Your task to perform on an android device: turn on the 24-hour format for clock Image 0: 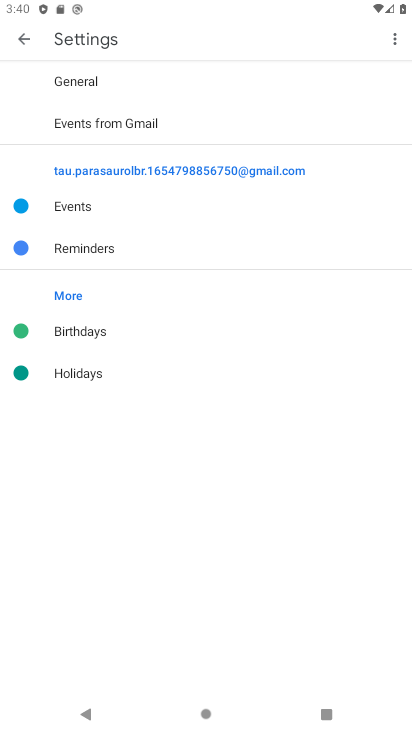
Step 0: press home button
Your task to perform on an android device: turn on the 24-hour format for clock Image 1: 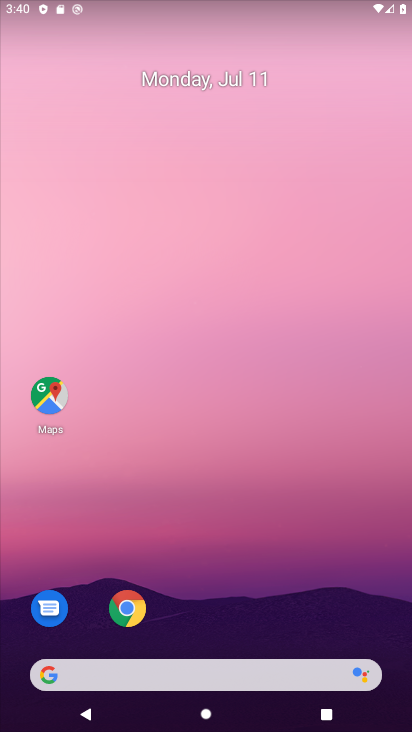
Step 1: drag from (125, 692) to (221, 19)
Your task to perform on an android device: turn on the 24-hour format for clock Image 2: 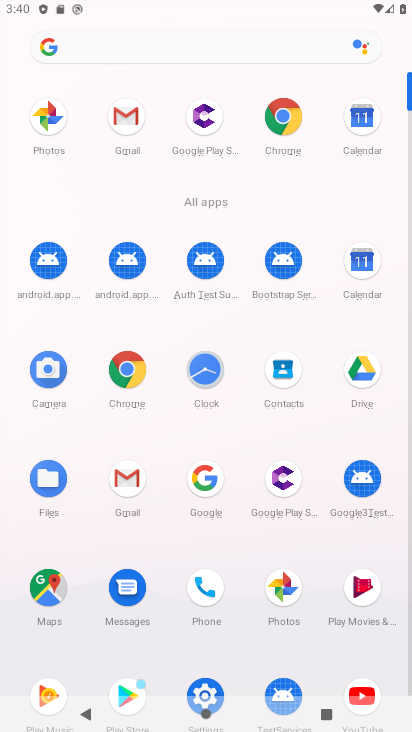
Step 2: drag from (235, 523) to (210, 89)
Your task to perform on an android device: turn on the 24-hour format for clock Image 3: 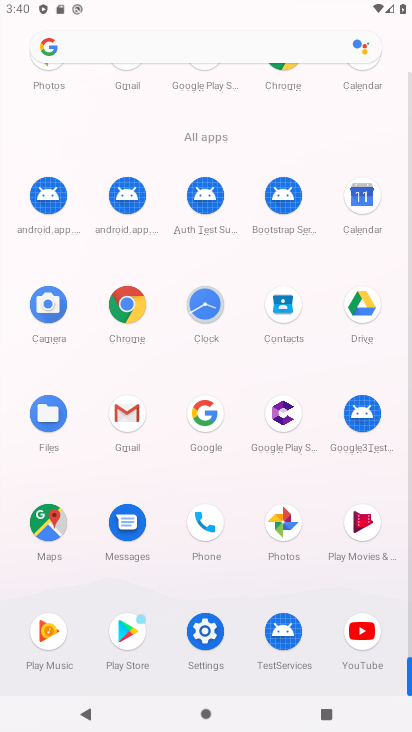
Step 3: click (209, 303)
Your task to perform on an android device: turn on the 24-hour format for clock Image 4: 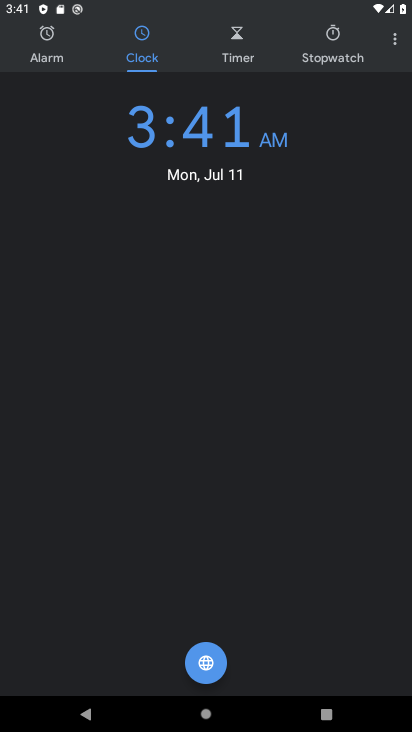
Step 4: click (390, 33)
Your task to perform on an android device: turn on the 24-hour format for clock Image 5: 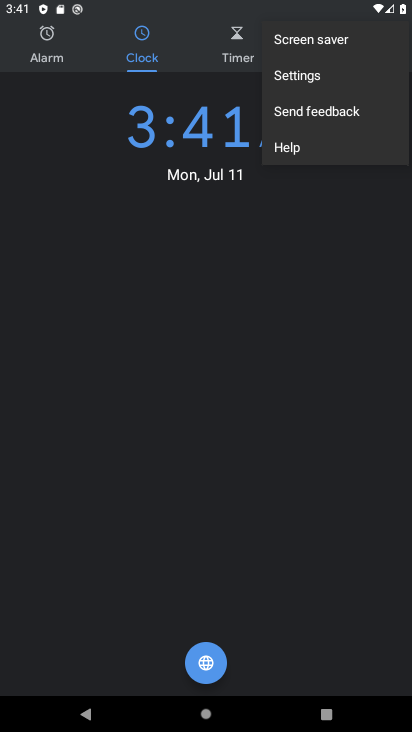
Step 5: click (333, 77)
Your task to perform on an android device: turn on the 24-hour format for clock Image 6: 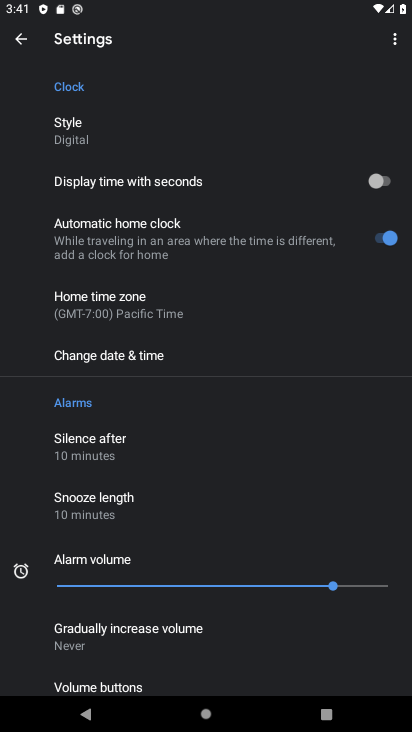
Step 6: click (138, 355)
Your task to perform on an android device: turn on the 24-hour format for clock Image 7: 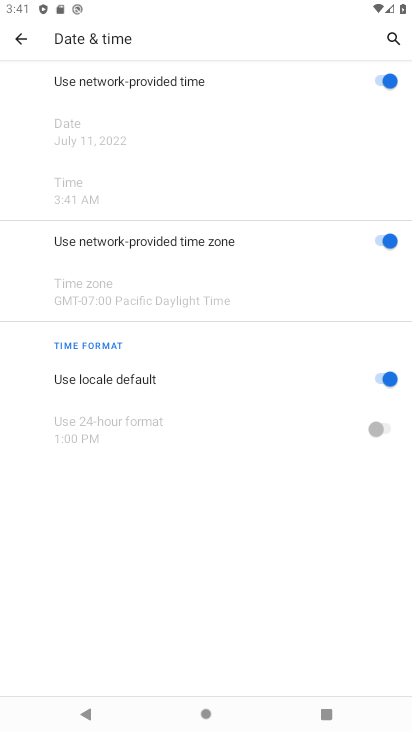
Step 7: click (389, 382)
Your task to perform on an android device: turn on the 24-hour format for clock Image 8: 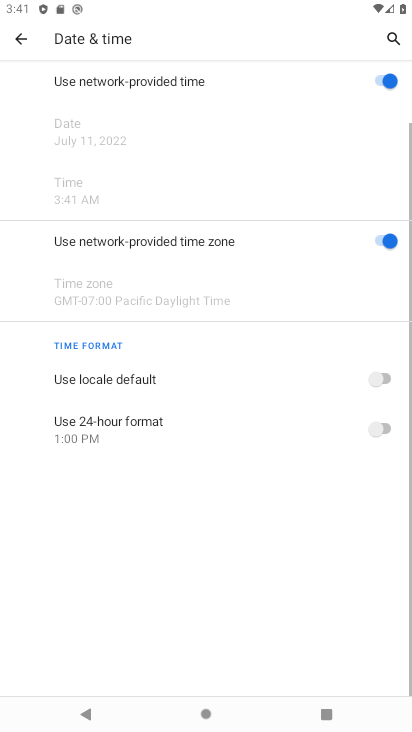
Step 8: click (380, 426)
Your task to perform on an android device: turn on the 24-hour format for clock Image 9: 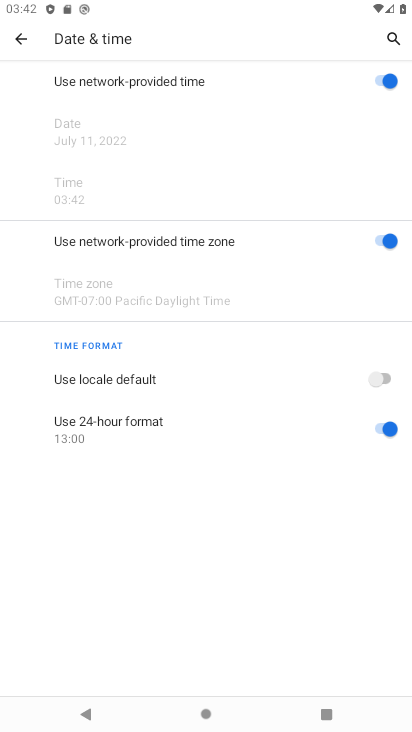
Step 9: task complete